Your task to perform on an android device: set the timer Image 0: 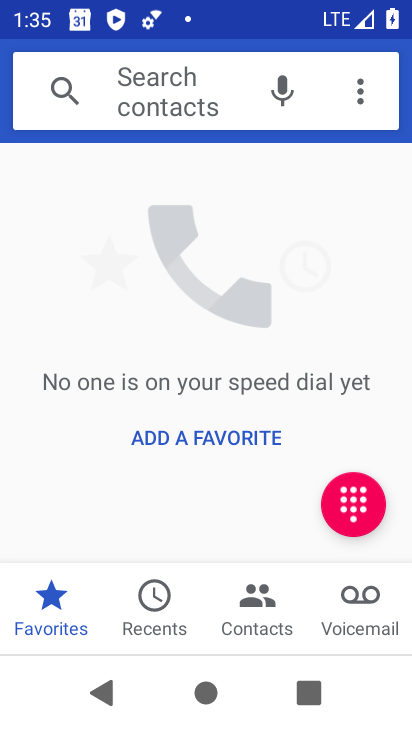
Step 0: press back button
Your task to perform on an android device: set the timer Image 1: 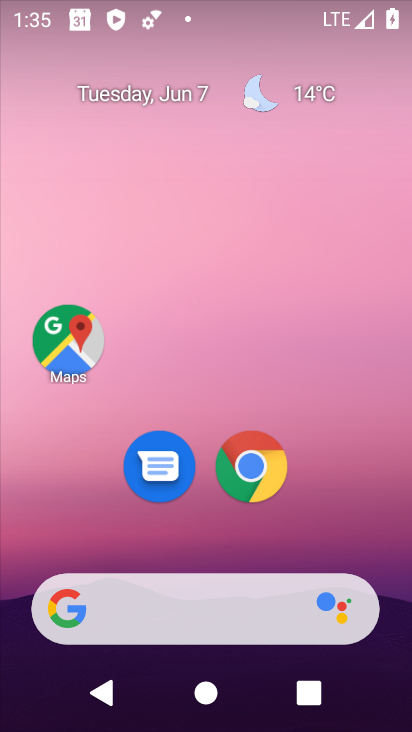
Step 1: drag from (164, 546) to (243, 21)
Your task to perform on an android device: set the timer Image 2: 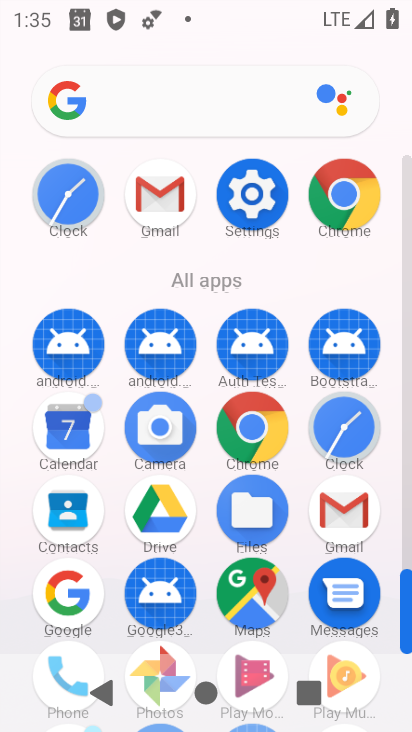
Step 2: click (348, 435)
Your task to perform on an android device: set the timer Image 3: 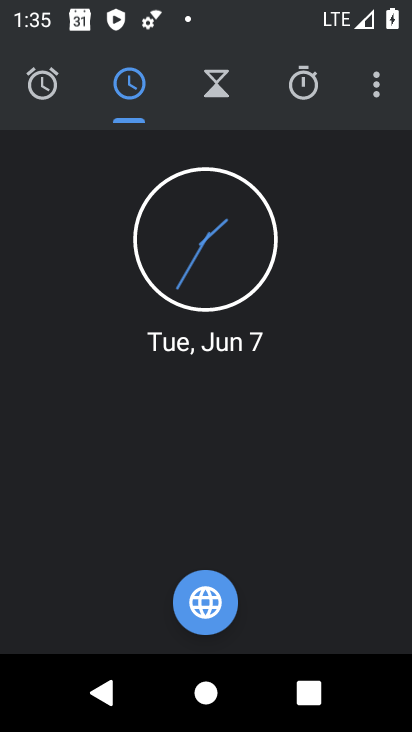
Step 3: click (212, 84)
Your task to perform on an android device: set the timer Image 4: 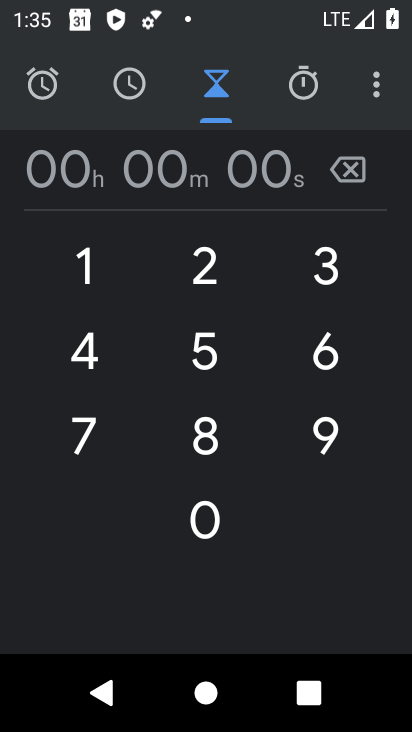
Step 4: click (181, 272)
Your task to perform on an android device: set the timer Image 5: 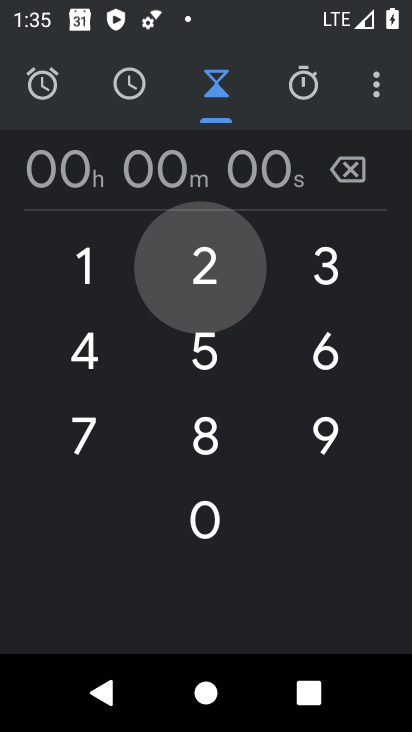
Step 5: click (323, 248)
Your task to perform on an android device: set the timer Image 6: 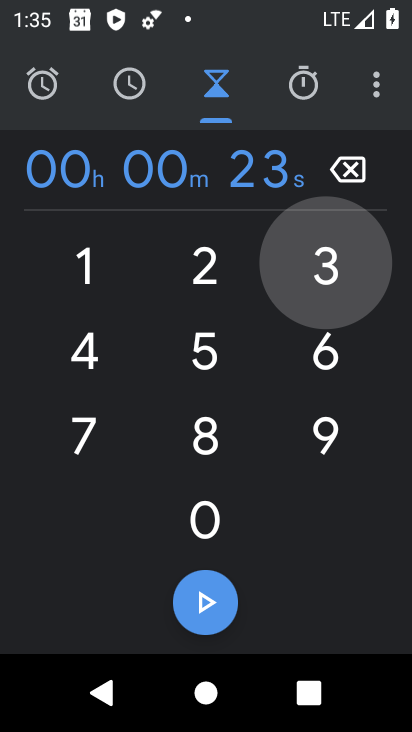
Step 6: click (198, 346)
Your task to perform on an android device: set the timer Image 7: 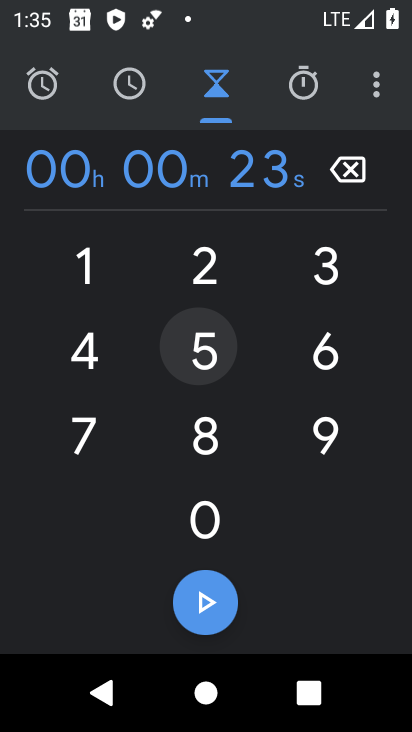
Step 7: click (310, 347)
Your task to perform on an android device: set the timer Image 8: 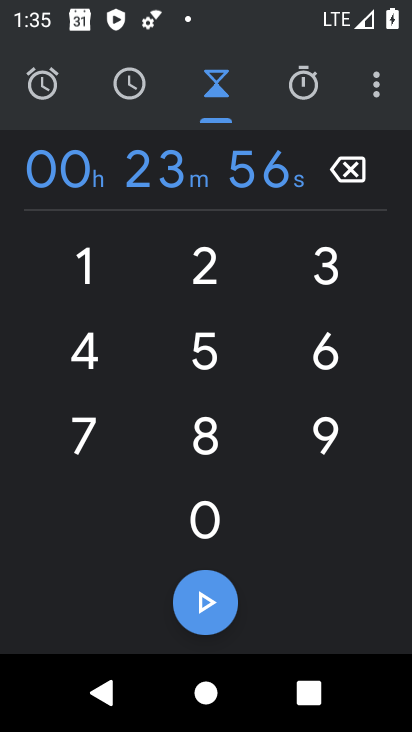
Step 8: click (205, 603)
Your task to perform on an android device: set the timer Image 9: 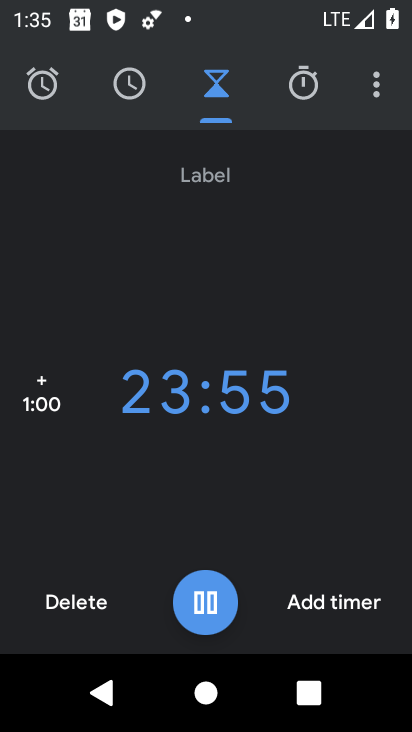
Step 9: task complete